Your task to perform on an android device: open chrome privacy settings Image 0: 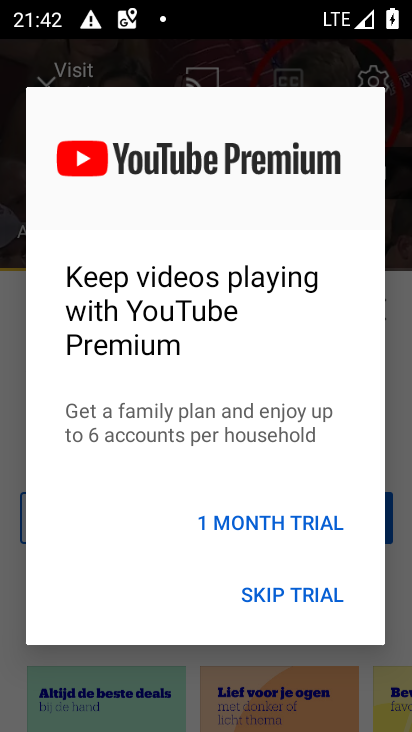
Step 0: press back button
Your task to perform on an android device: open chrome privacy settings Image 1: 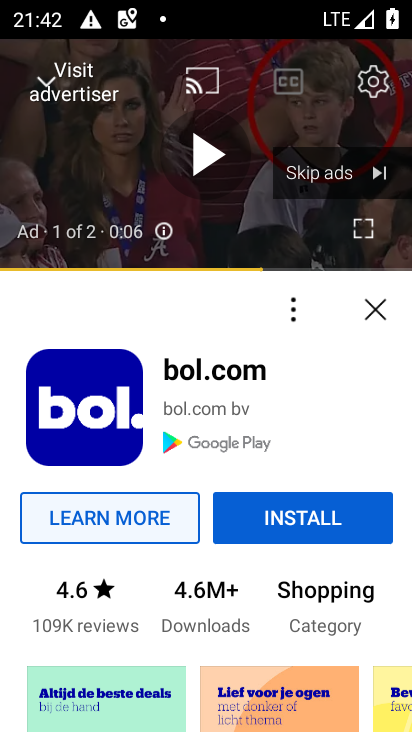
Step 1: press home button
Your task to perform on an android device: open chrome privacy settings Image 2: 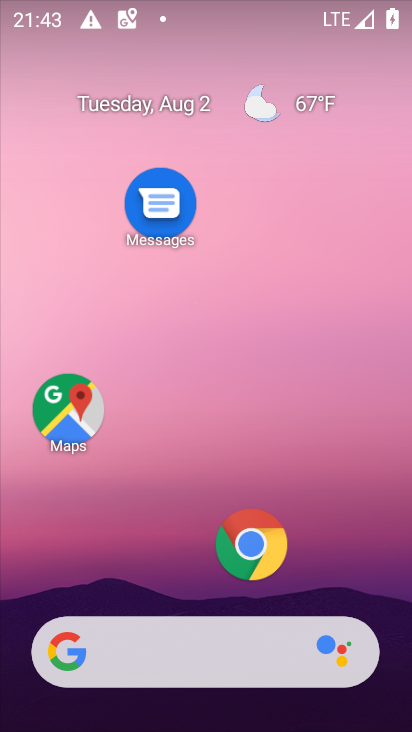
Step 2: click (240, 566)
Your task to perform on an android device: open chrome privacy settings Image 3: 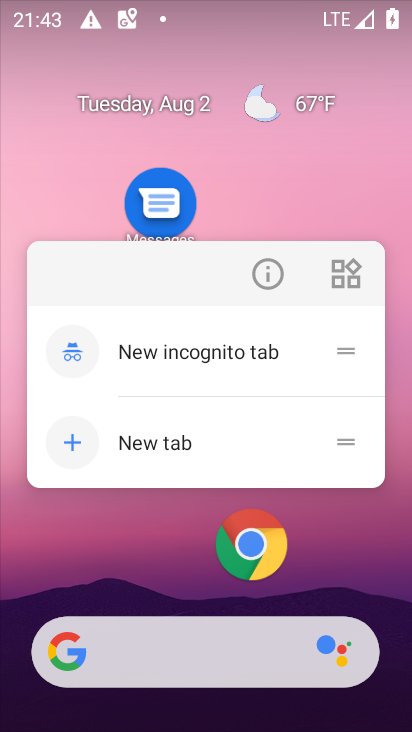
Step 3: click (254, 535)
Your task to perform on an android device: open chrome privacy settings Image 4: 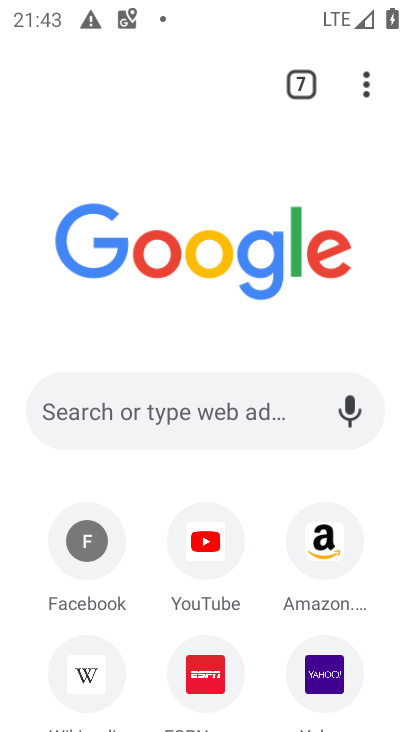
Step 4: click (372, 88)
Your task to perform on an android device: open chrome privacy settings Image 5: 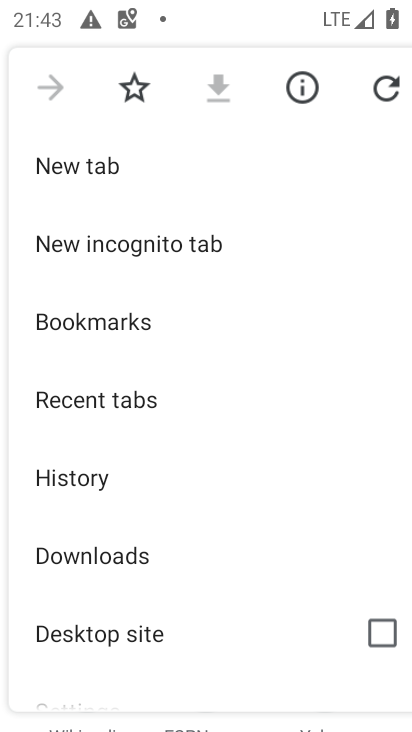
Step 5: drag from (166, 610) to (193, 235)
Your task to perform on an android device: open chrome privacy settings Image 6: 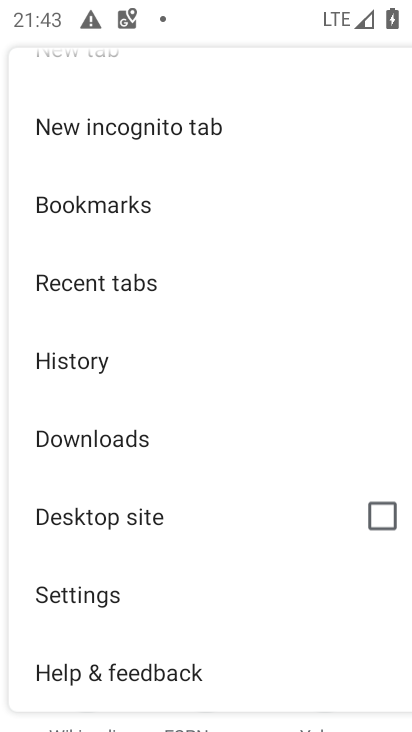
Step 6: click (118, 600)
Your task to perform on an android device: open chrome privacy settings Image 7: 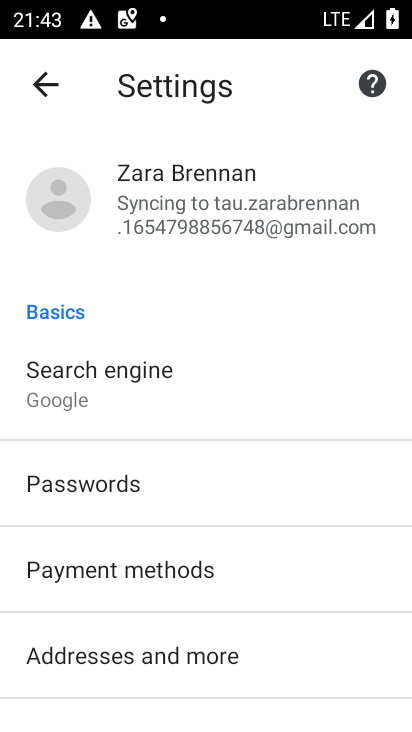
Step 7: drag from (169, 623) to (184, 355)
Your task to perform on an android device: open chrome privacy settings Image 8: 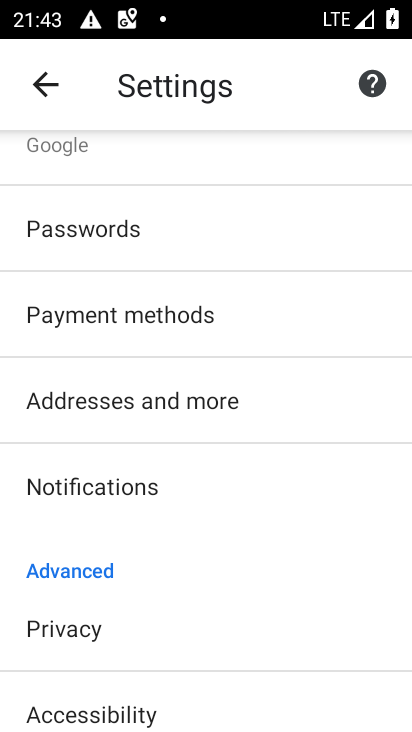
Step 8: click (118, 637)
Your task to perform on an android device: open chrome privacy settings Image 9: 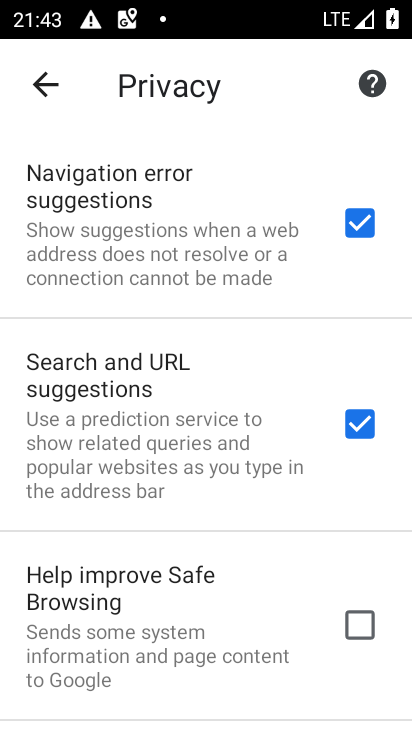
Step 9: task complete